Your task to perform on an android device: change notifications settings Image 0: 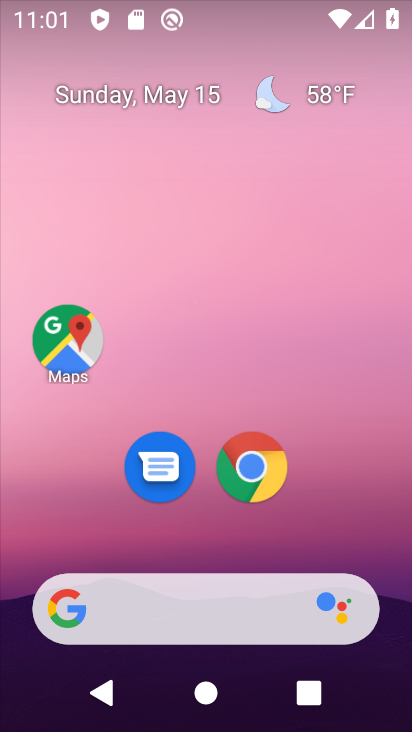
Step 0: drag from (208, 554) to (226, 63)
Your task to perform on an android device: change notifications settings Image 1: 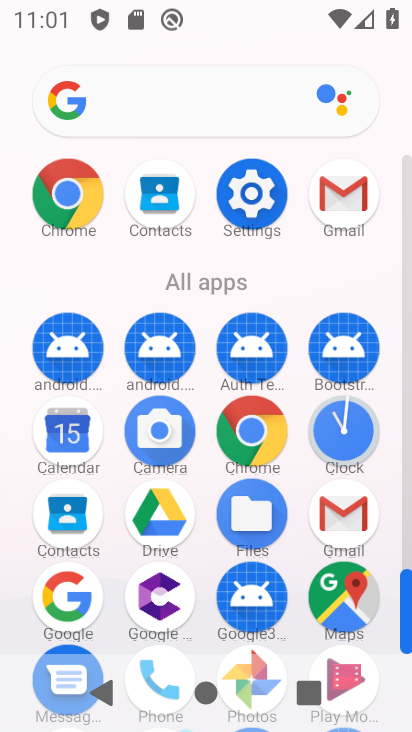
Step 1: click (251, 183)
Your task to perform on an android device: change notifications settings Image 2: 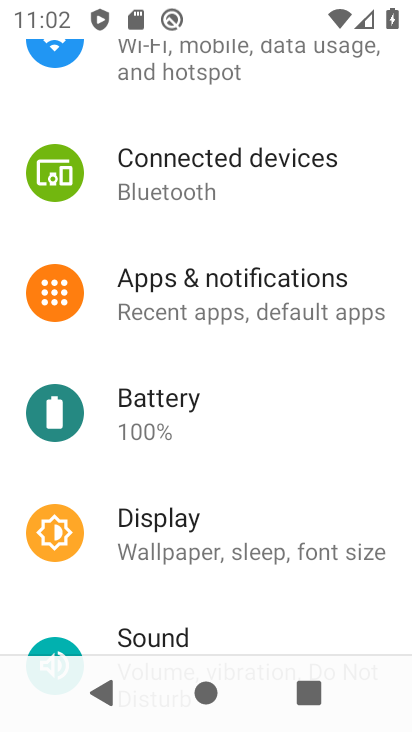
Step 2: click (238, 295)
Your task to perform on an android device: change notifications settings Image 3: 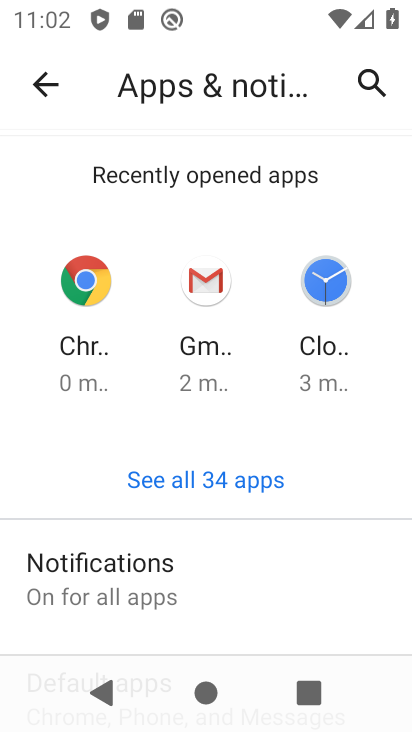
Step 3: click (184, 573)
Your task to perform on an android device: change notifications settings Image 4: 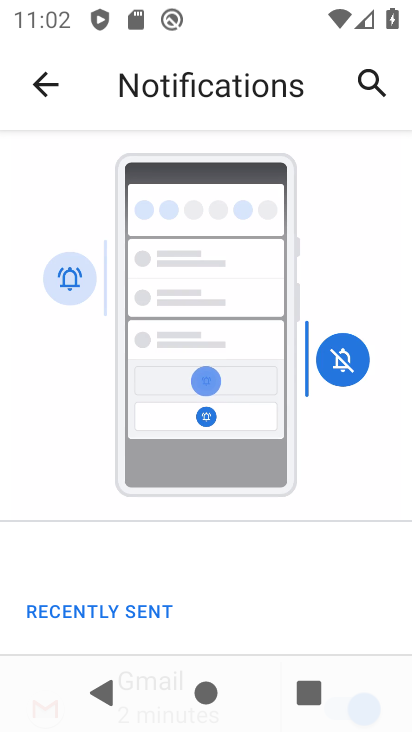
Step 4: drag from (218, 593) to (242, 124)
Your task to perform on an android device: change notifications settings Image 5: 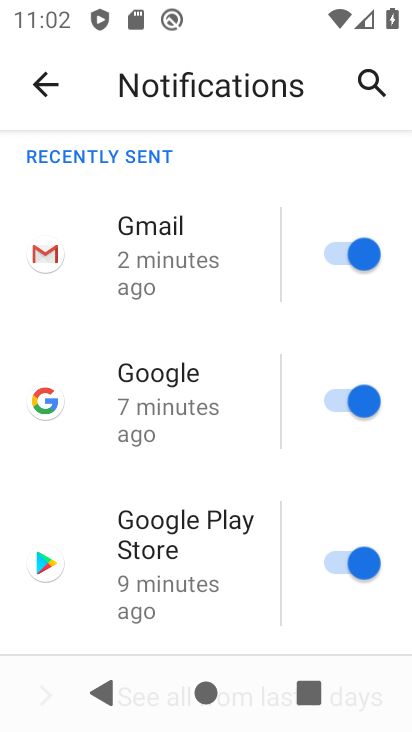
Step 5: drag from (235, 598) to (286, 223)
Your task to perform on an android device: change notifications settings Image 6: 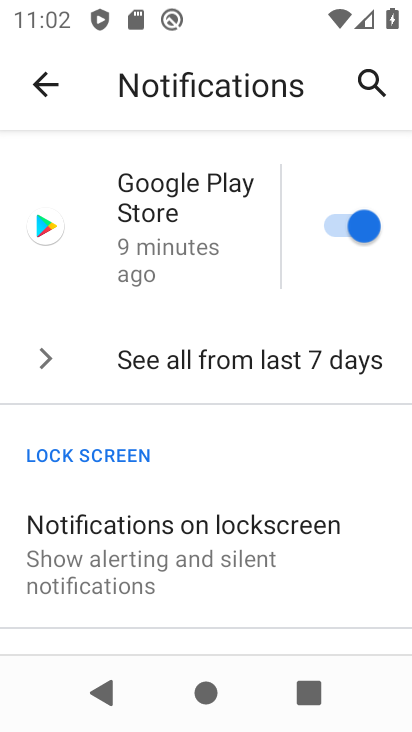
Step 6: drag from (187, 228) to (132, 720)
Your task to perform on an android device: change notifications settings Image 7: 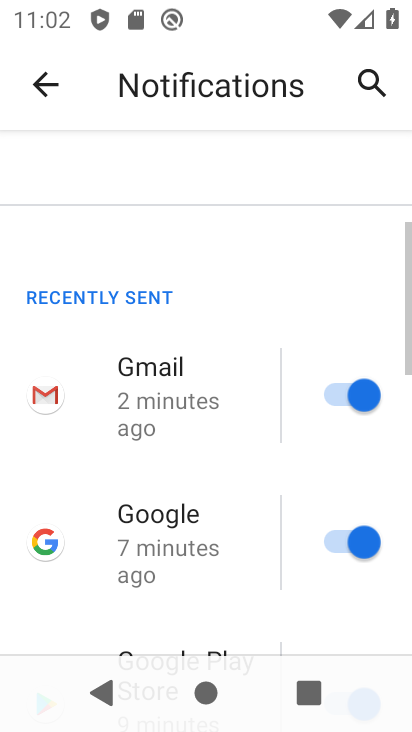
Step 7: click (356, 377)
Your task to perform on an android device: change notifications settings Image 8: 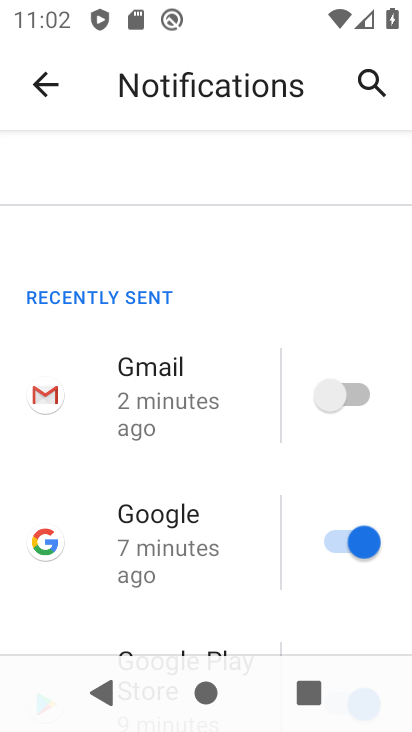
Step 8: click (346, 541)
Your task to perform on an android device: change notifications settings Image 9: 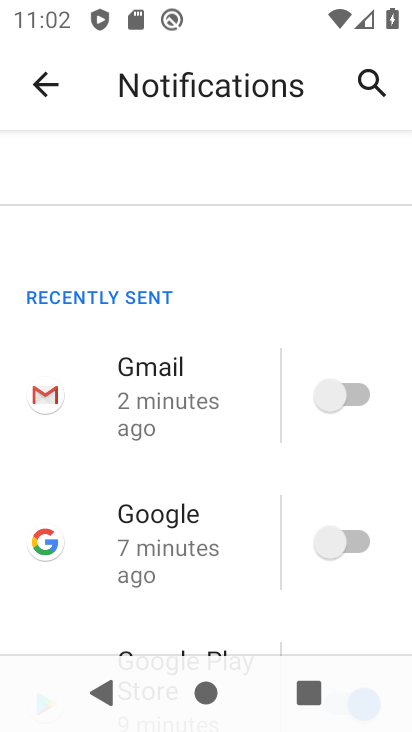
Step 9: drag from (246, 336) to (264, 124)
Your task to perform on an android device: change notifications settings Image 10: 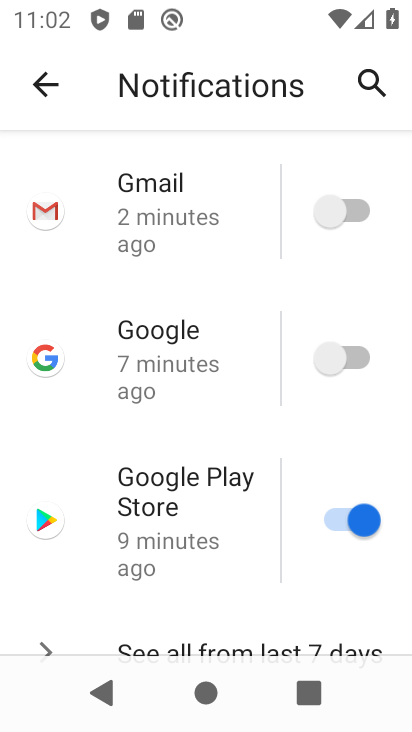
Step 10: click (336, 513)
Your task to perform on an android device: change notifications settings Image 11: 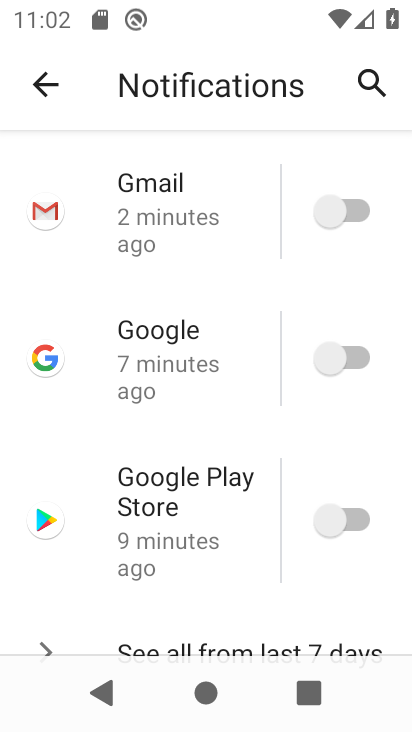
Step 11: drag from (225, 586) to (269, 203)
Your task to perform on an android device: change notifications settings Image 12: 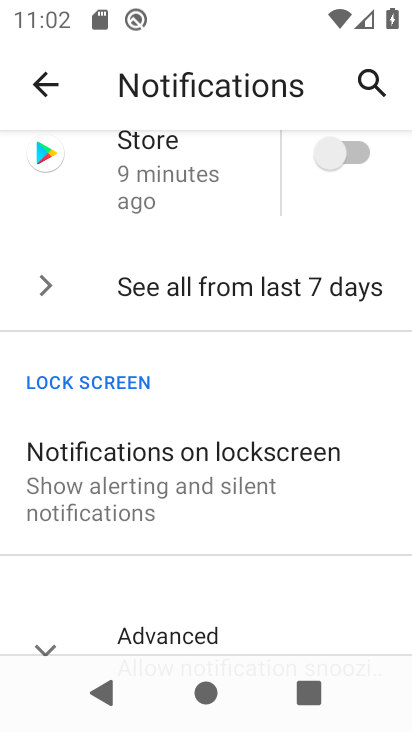
Step 12: drag from (237, 602) to (308, 154)
Your task to perform on an android device: change notifications settings Image 13: 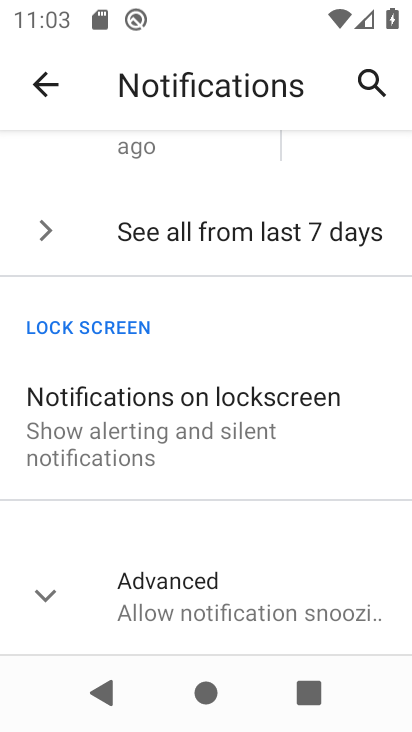
Step 13: click (78, 603)
Your task to perform on an android device: change notifications settings Image 14: 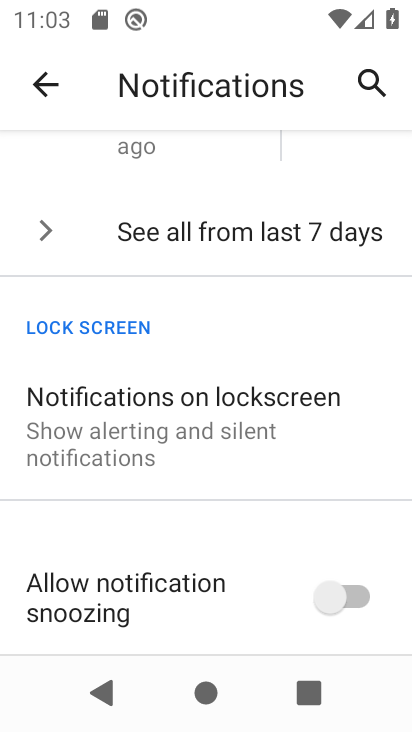
Step 14: task complete